Your task to perform on an android device: See recent photos Image 0: 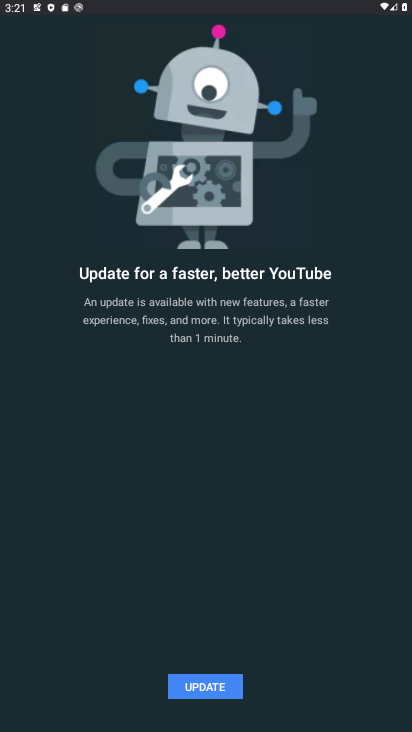
Step 0: press back button
Your task to perform on an android device: See recent photos Image 1: 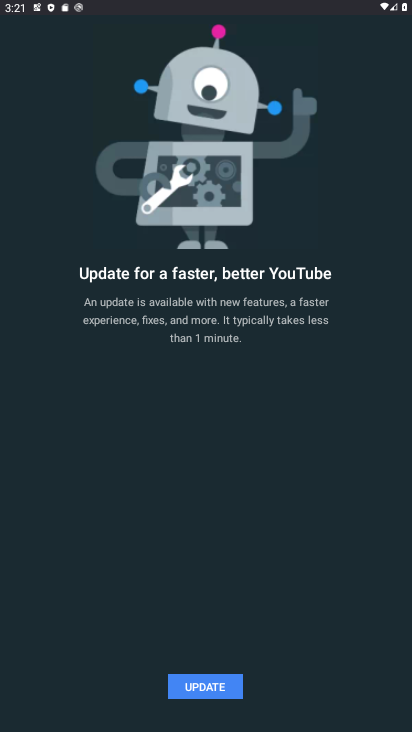
Step 1: press back button
Your task to perform on an android device: See recent photos Image 2: 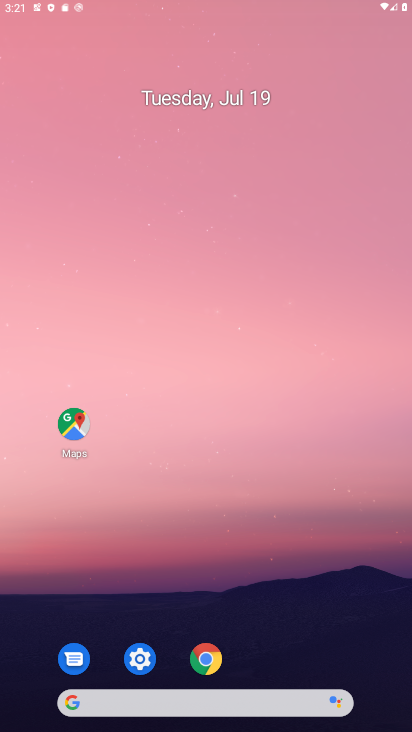
Step 2: press back button
Your task to perform on an android device: See recent photos Image 3: 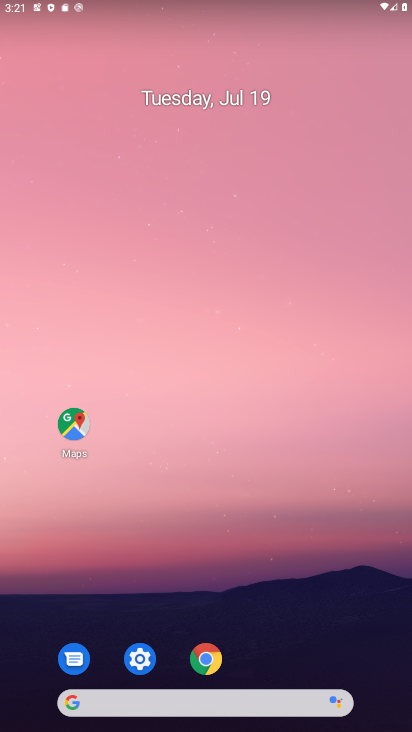
Step 3: press back button
Your task to perform on an android device: See recent photos Image 4: 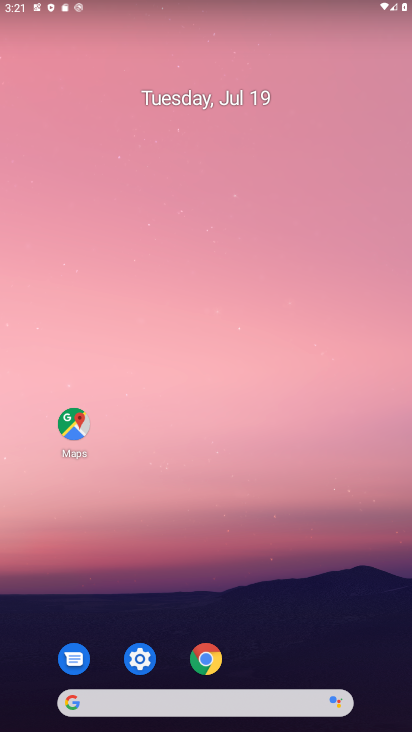
Step 4: drag from (241, 609) to (141, 204)
Your task to perform on an android device: See recent photos Image 5: 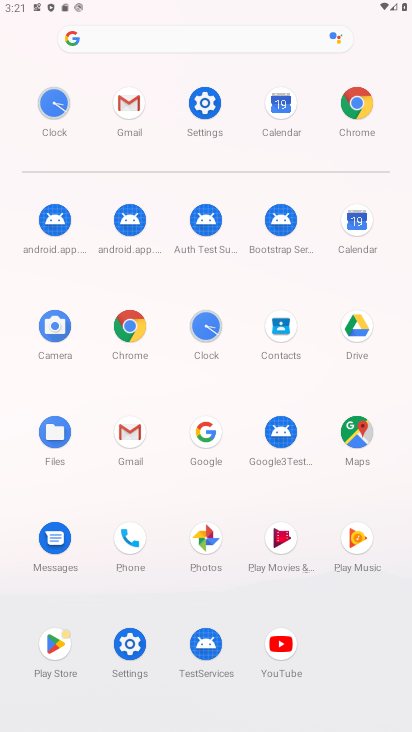
Step 5: click (207, 531)
Your task to perform on an android device: See recent photos Image 6: 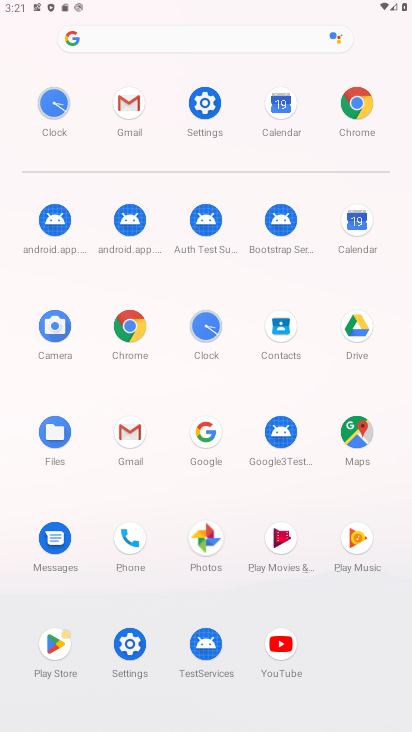
Step 6: click (205, 535)
Your task to perform on an android device: See recent photos Image 7: 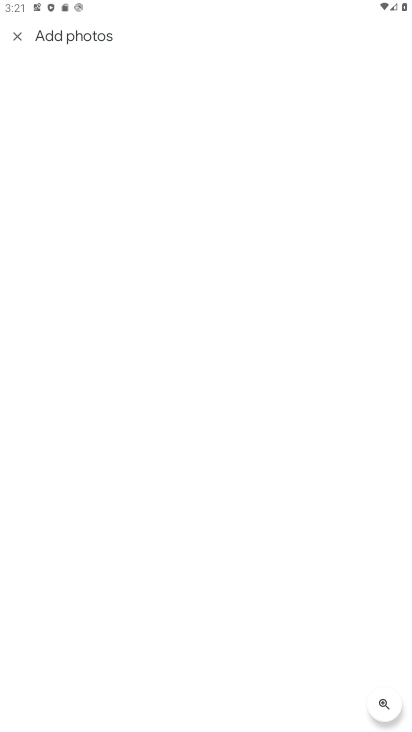
Step 7: task complete